Your task to perform on an android device: clear history in the chrome app Image 0: 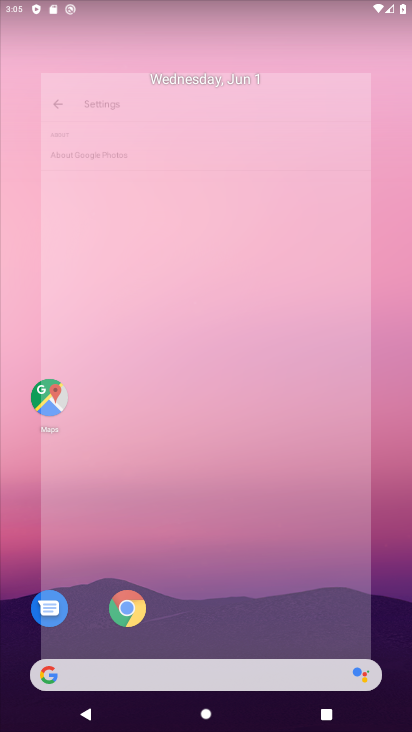
Step 0: drag from (169, 664) to (195, 134)
Your task to perform on an android device: clear history in the chrome app Image 1: 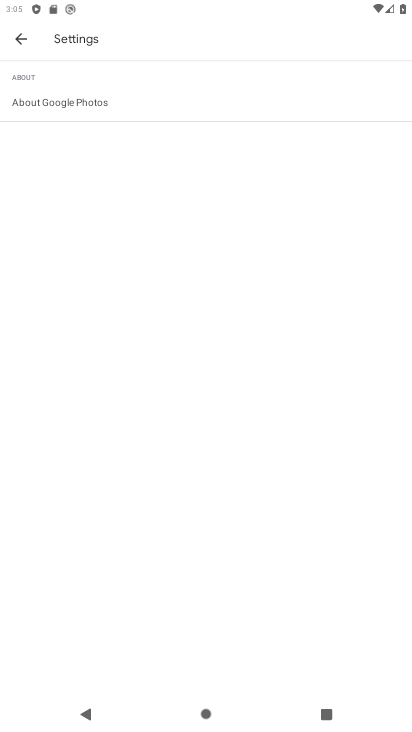
Step 1: press home button
Your task to perform on an android device: clear history in the chrome app Image 2: 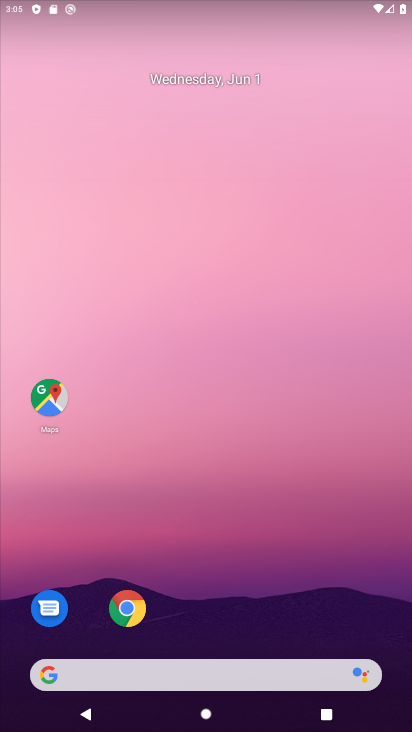
Step 2: drag from (200, 670) to (180, 163)
Your task to perform on an android device: clear history in the chrome app Image 3: 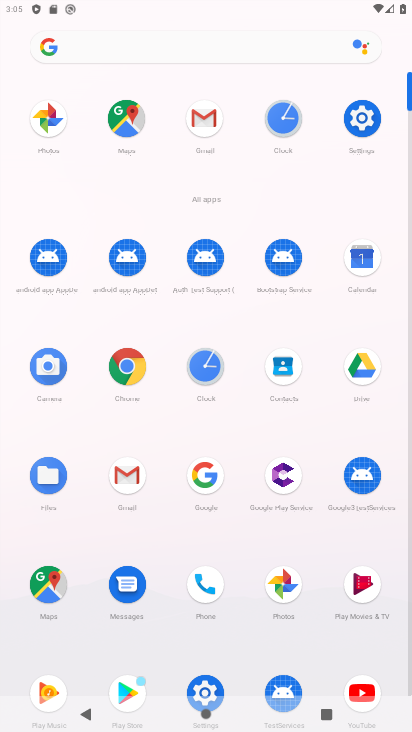
Step 3: click (120, 362)
Your task to perform on an android device: clear history in the chrome app Image 4: 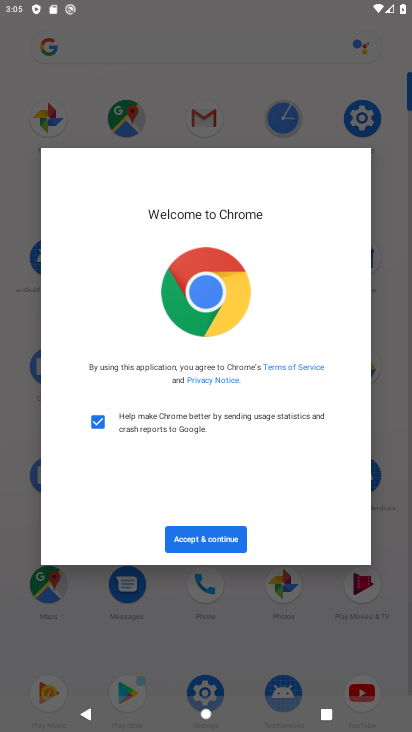
Step 4: click (212, 549)
Your task to perform on an android device: clear history in the chrome app Image 5: 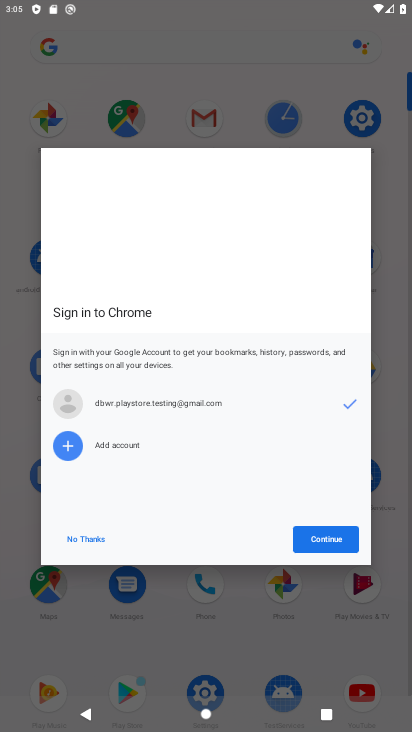
Step 5: click (321, 538)
Your task to perform on an android device: clear history in the chrome app Image 6: 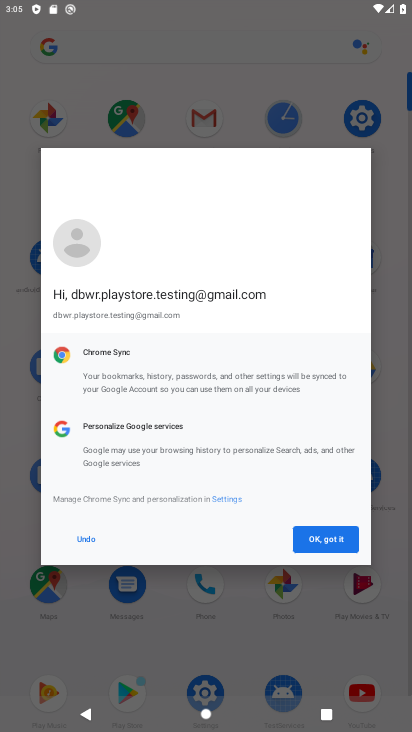
Step 6: click (321, 538)
Your task to perform on an android device: clear history in the chrome app Image 7: 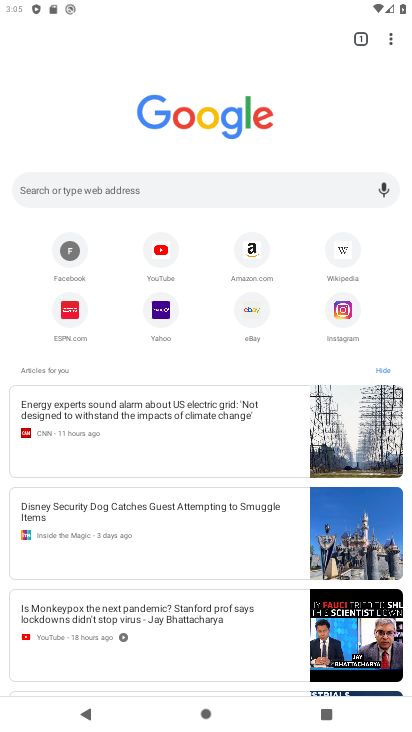
Step 7: task complete